Your task to perform on an android device: Go to location settings Image 0: 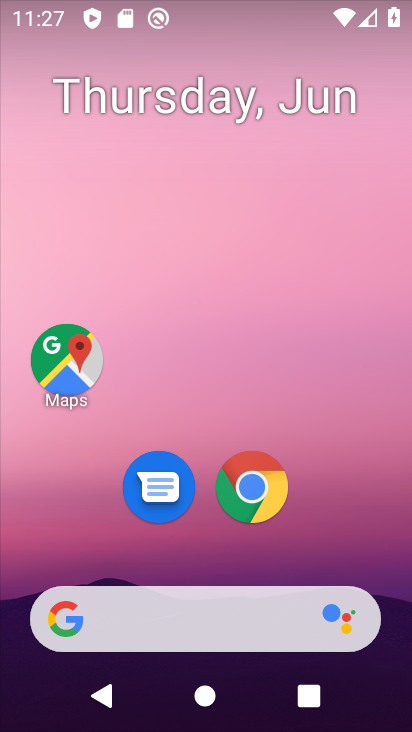
Step 0: drag from (139, 573) to (205, 46)
Your task to perform on an android device: Go to location settings Image 1: 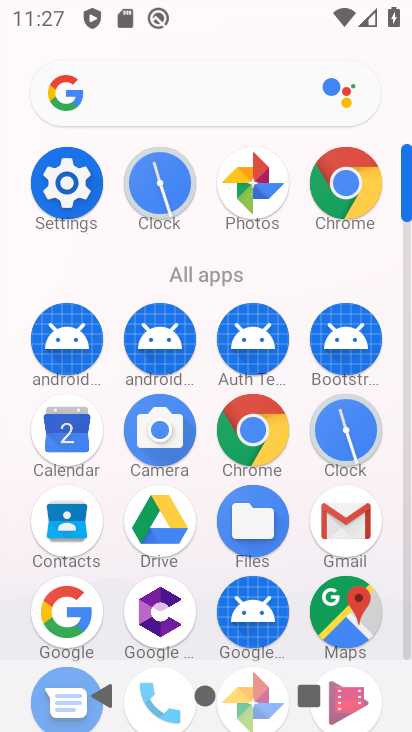
Step 1: drag from (142, 551) to (208, 274)
Your task to perform on an android device: Go to location settings Image 2: 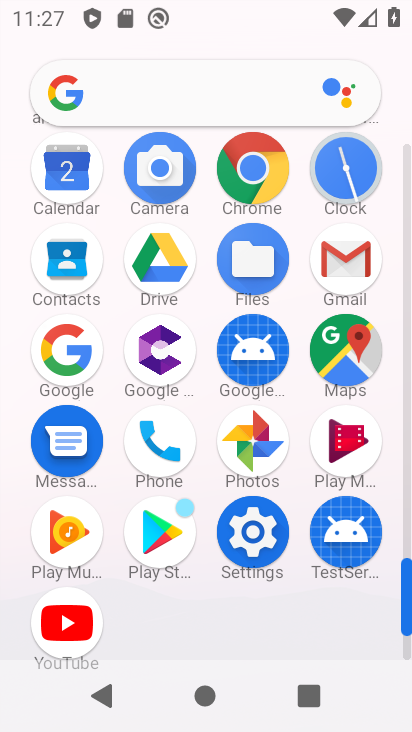
Step 2: click (260, 550)
Your task to perform on an android device: Go to location settings Image 3: 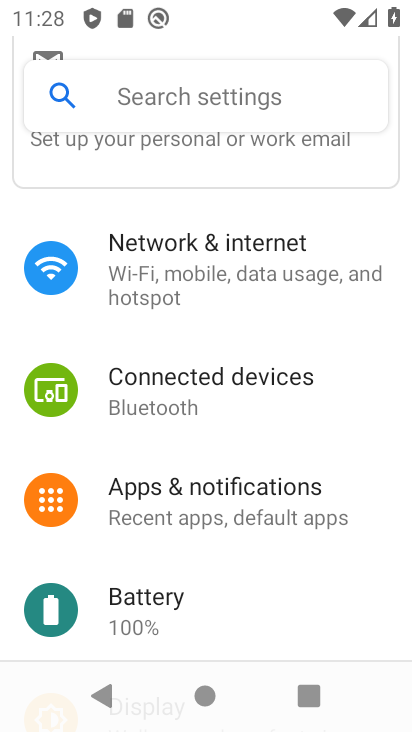
Step 3: drag from (165, 525) to (267, 159)
Your task to perform on an android device: Go to location settings Image 4: 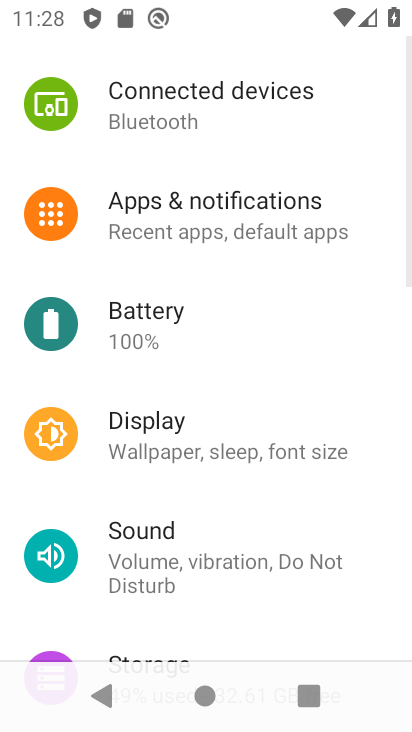
Step 4: drag from (173, 602) to (281, 166)
Your task to perform on an android device: Go to location settings Image 5: 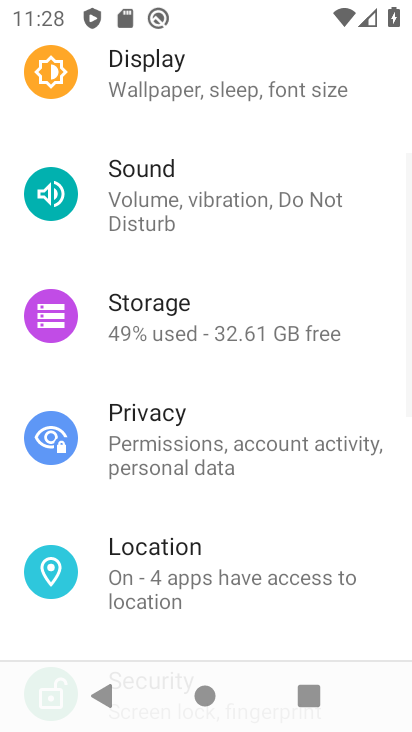
Step 5: click (189, 564)
Your task to perform on an android device: Go to location settings Image 6: 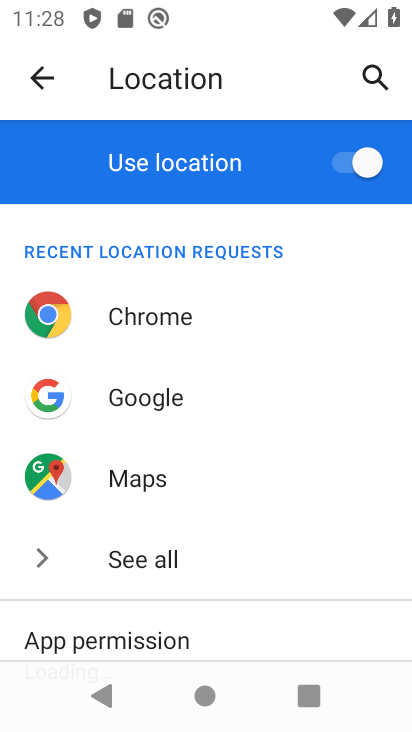
Step 6: task complete